Your task to perform on an android device: install app "Google Duo" Image 0: 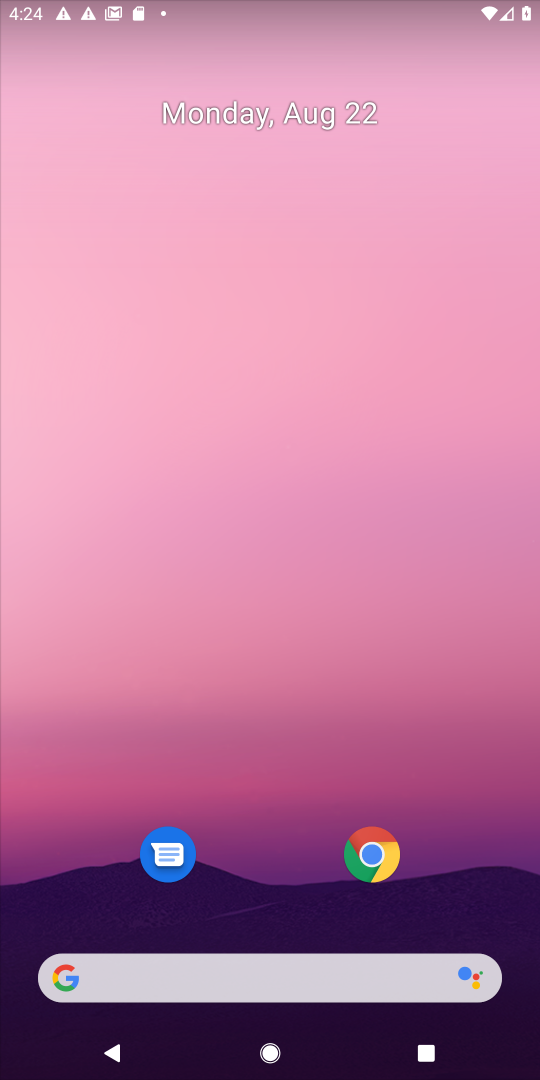
Step 0: drag from (274, 778) to (259, 98)
Your task to perform on an android device: install app "Google Duo" Image 1: 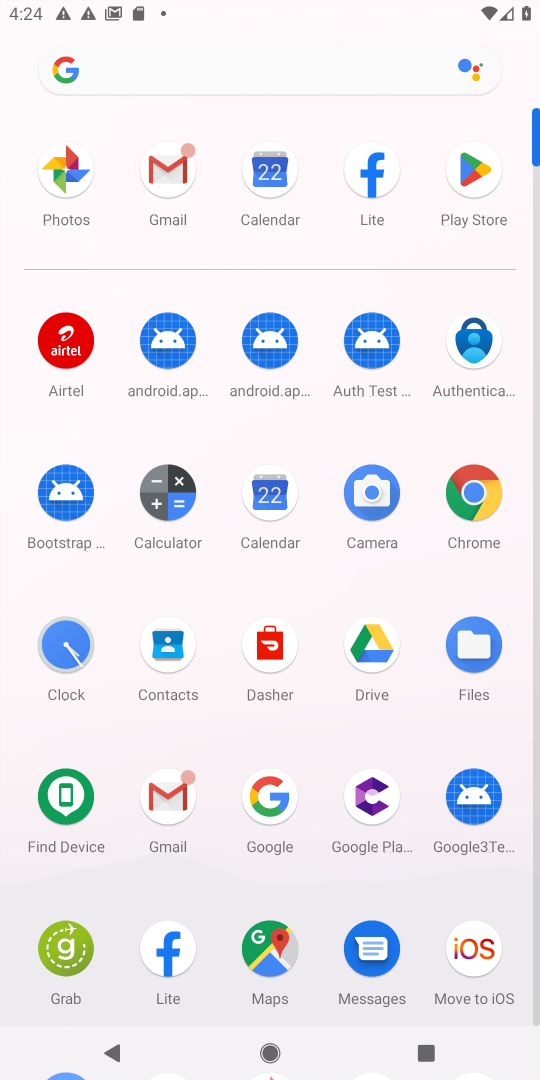
Step 1: click (474, 169)
Your task to perform on an android device: install app "Google Duo" Image 2: 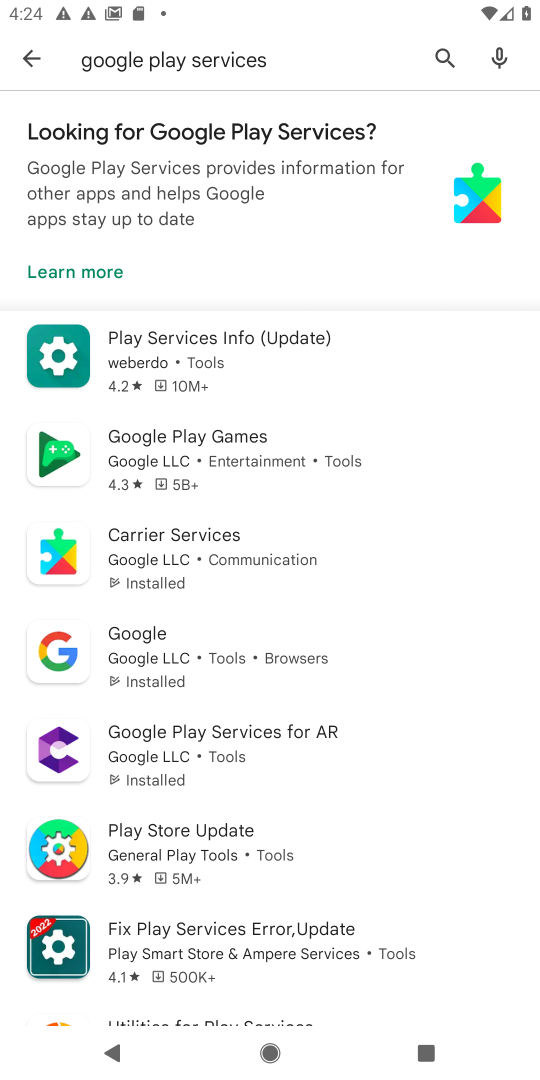
Step 2: click (439, 55)
Your task to perform on an android device: install app "Google Duo" Image 3: 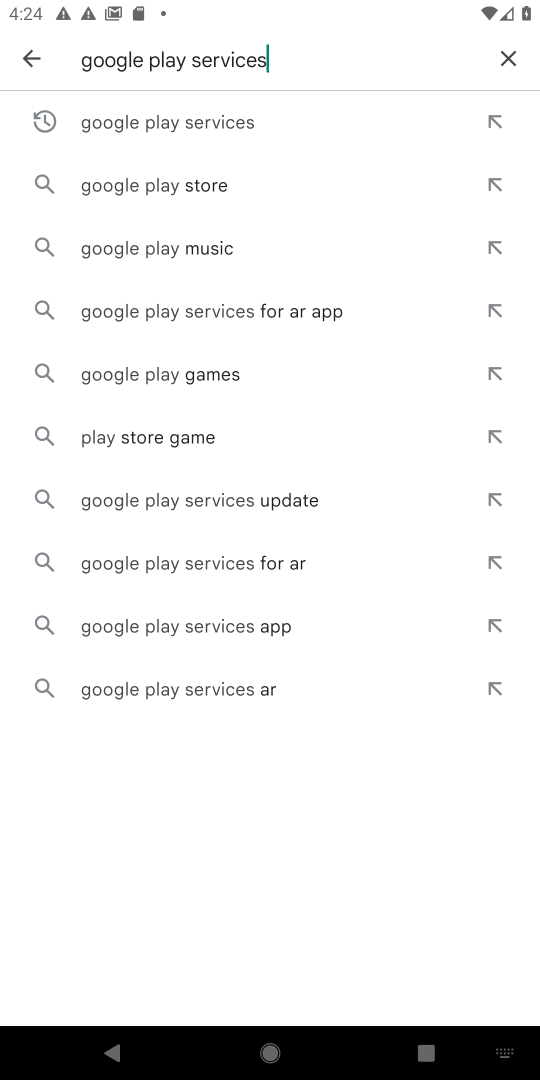
Step 3: click (505, 52)
Your task to perform on an android device: install app "Google Duo" Image 4: 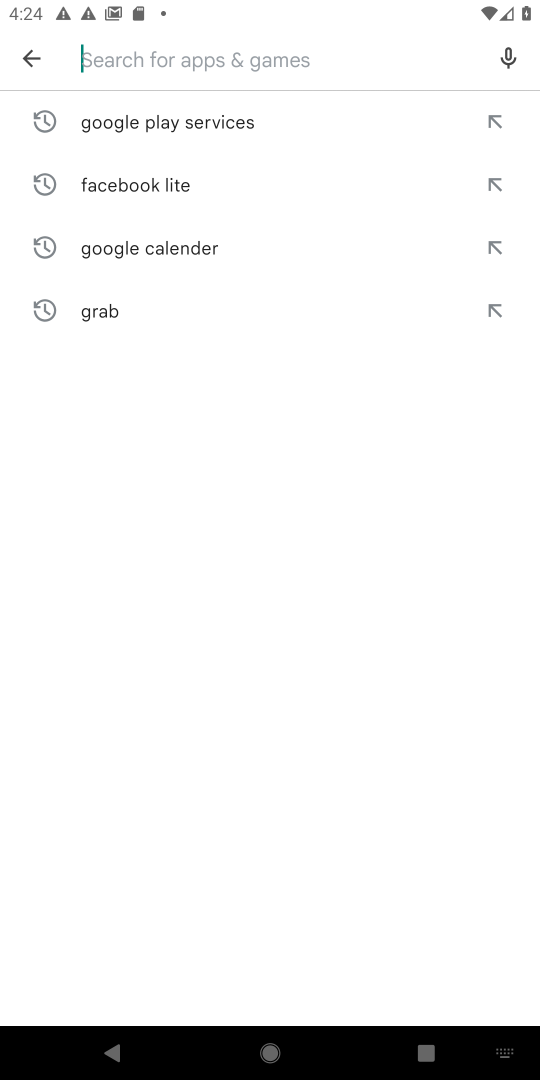
Step 4: type "Google Duo"
Your task to perform on an android device: install app "Google Duo" Image 5: 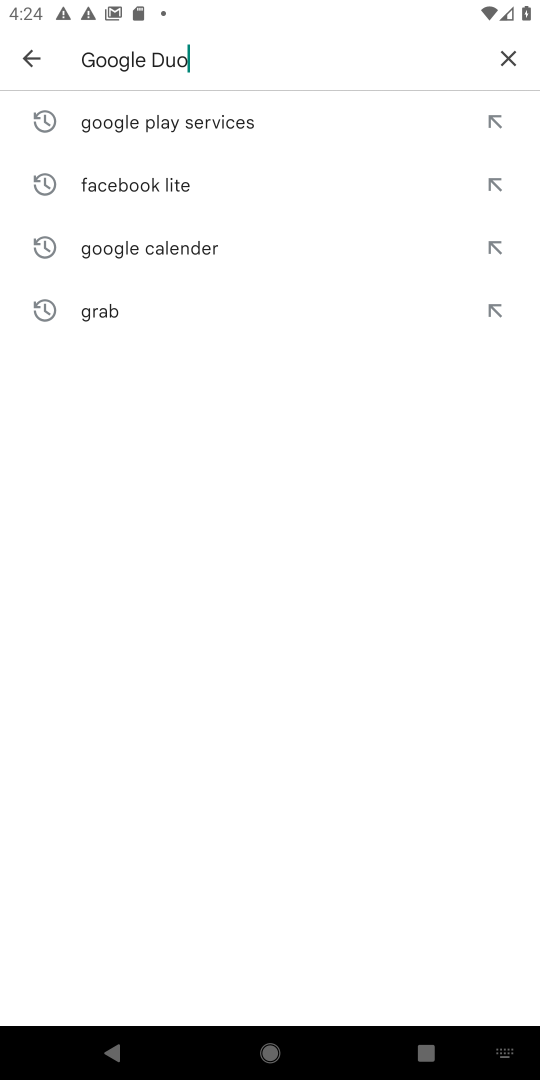
Step 5: type ""
Your task to perform on an android device: install app "Google Duo" Image 6: 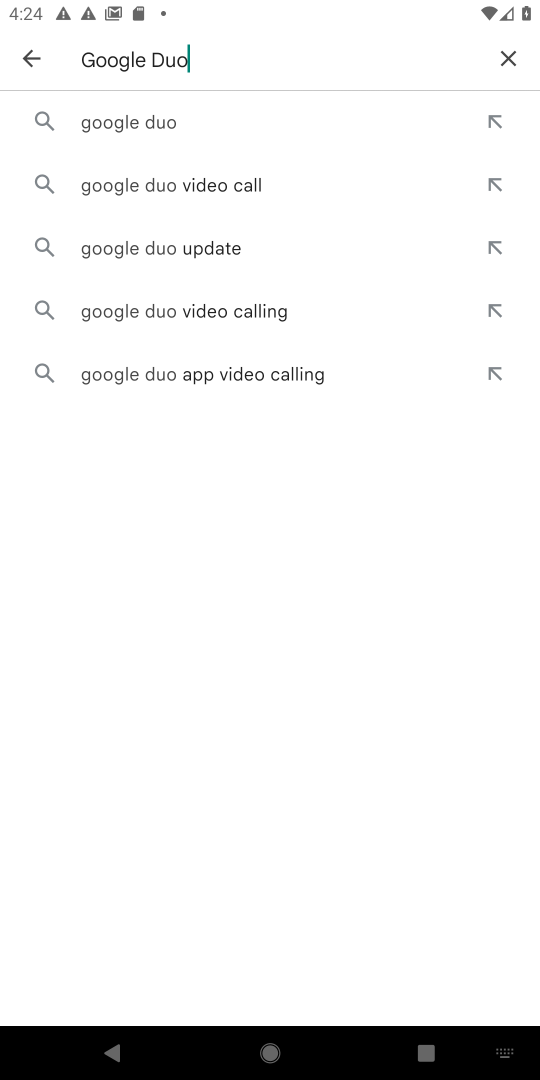
Step 6: click (140, 117)
Your task to perform on an android device: install app "Google Duo" Image 7: 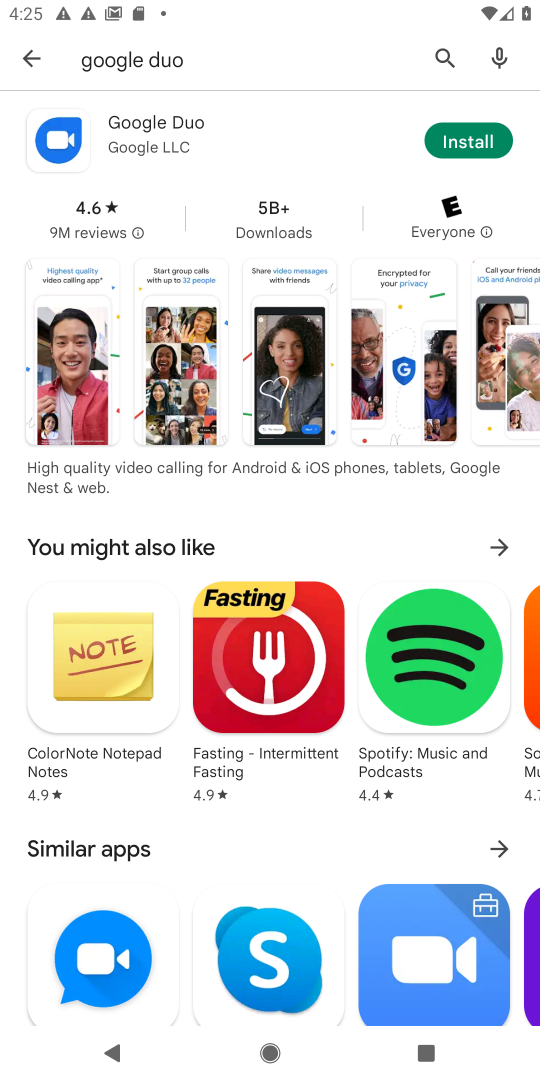
Step 7: click (469, 140)
Your task to perform on an android device: install app "Google Duo" Image 8: 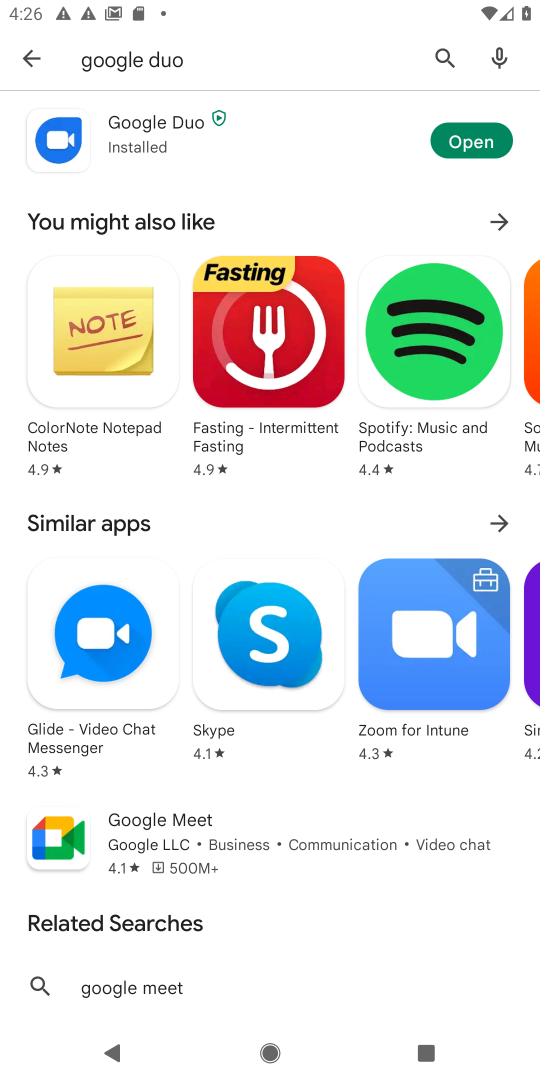
Step 8: task complete